Your task to perform on an android device: set an alarm Image 0: 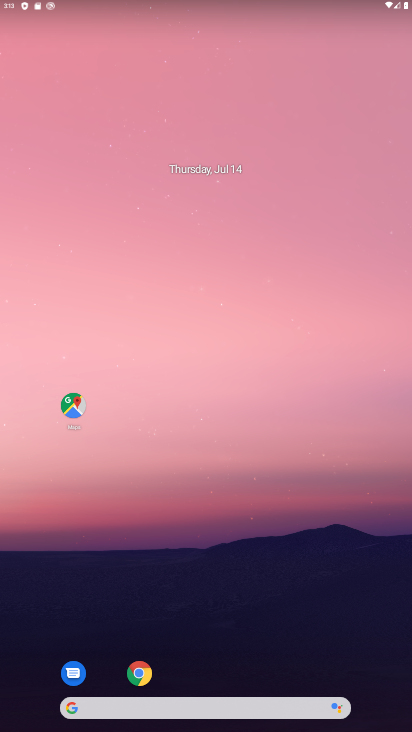
Step 0: drag from (228, 677) to (228, 72)
Your task to perform on an android device: set an alarm Image 1: 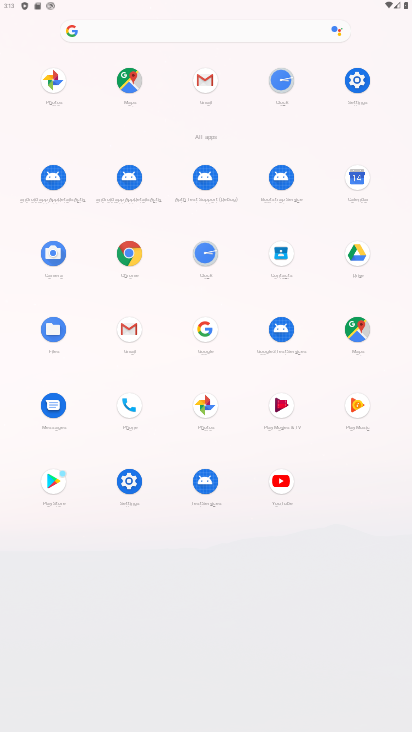
Step 1: click (205, 254)
Your task to perform on an android device: set an alarm Image 2: 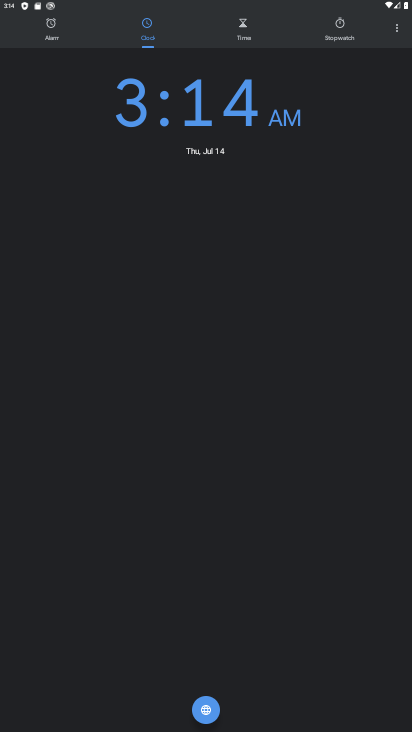
Step 2: click (53, 32)
Your task to perform on an android device: set an alarm Image 3: 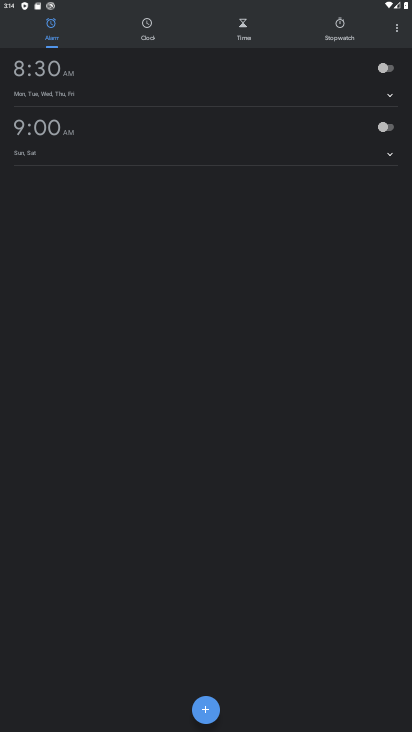
Step 3: click (204, 714)
Your task to perform on an android device: set an alarm Image 4: 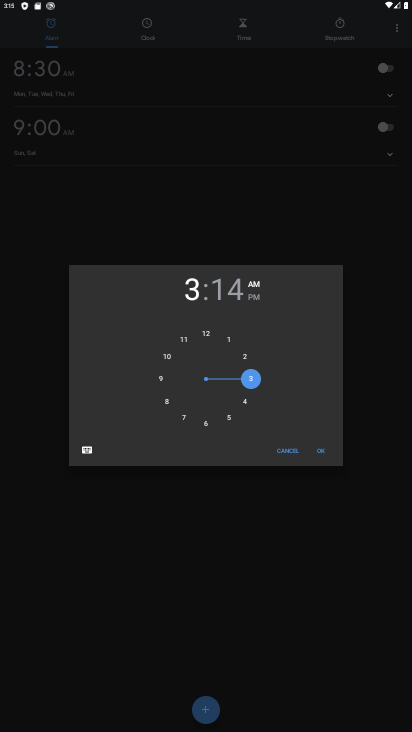
Step 4: click (209, 425)
Your task to perform on an android device: set an alarm Image 5: 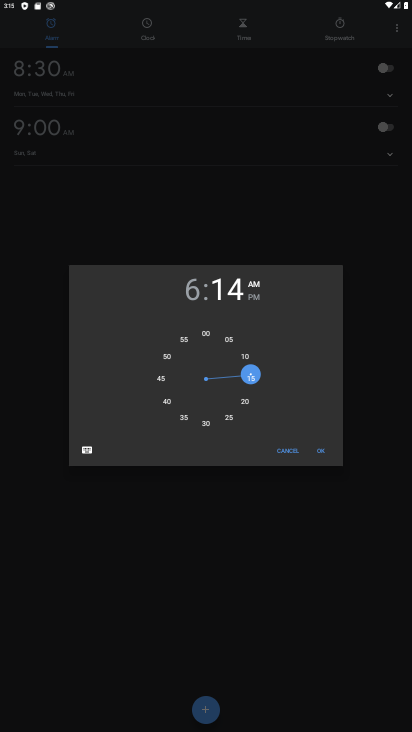
Step 5: click (321, 452)
Your task to perform on an android device: set an alarm Image 6: 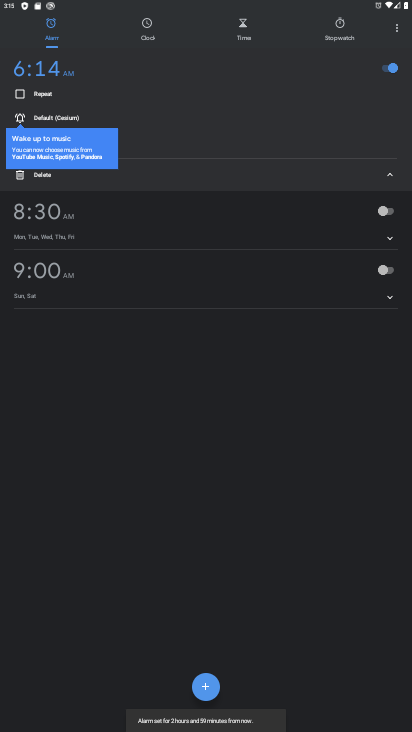
Step 6: task complete